Your task to perform on an android device: Play the last video I watched on Youtube Image 0: 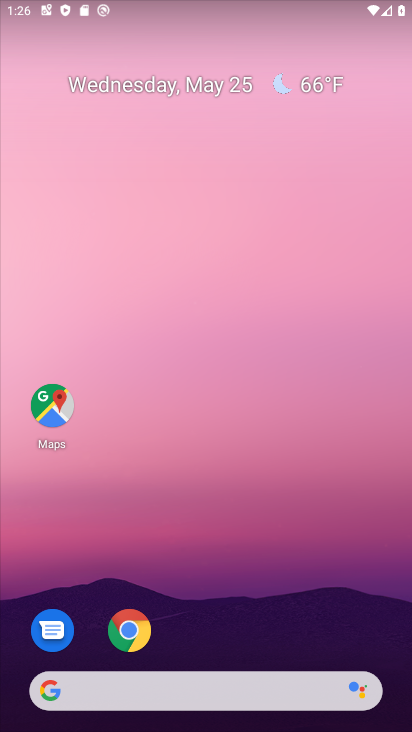
Step 0: press home button
Your task to perform on an android device: Play the last video I watched on Youtube Image 1: 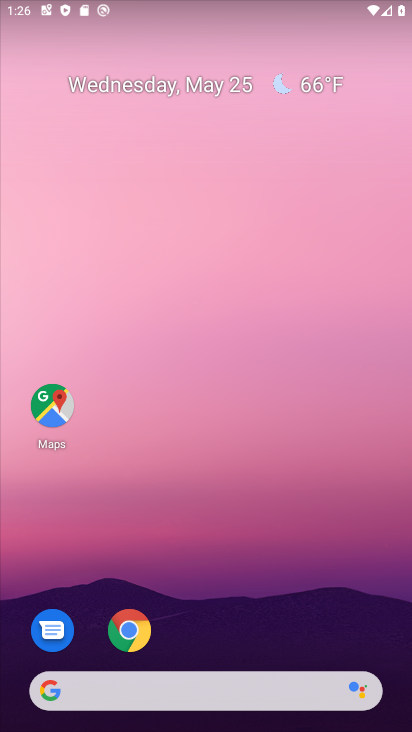
Step 1: drag from (230, 641) to (246, 140)
Your task to perform on an android device: Play the last video I watched on Youtube Image 2: 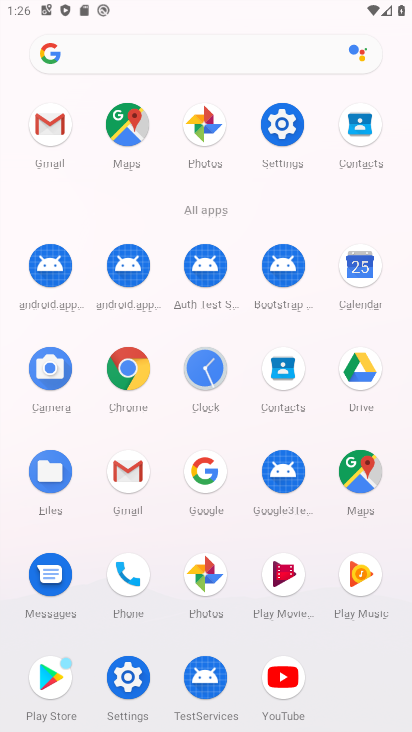
Step 2: click (283, 670)
Your task to perform on an android device: Play the last video I watched on Youtube Image 3: 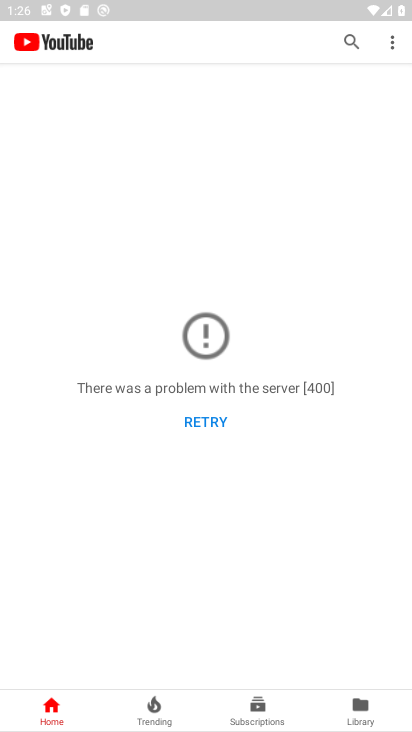
Step 3: click (361, 708)
Your task to perform on an android device: Play the last video I watched on Youtube Image 4: 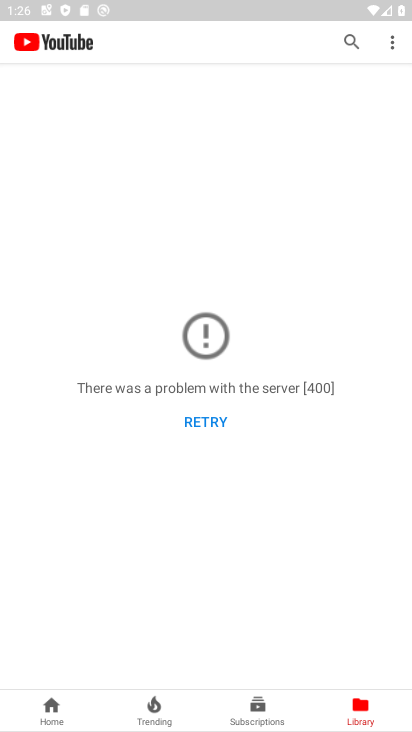
Step 4: click (208, 421)
Your task to perform on an android device: Play the last video I watched on Youtube Image 5: 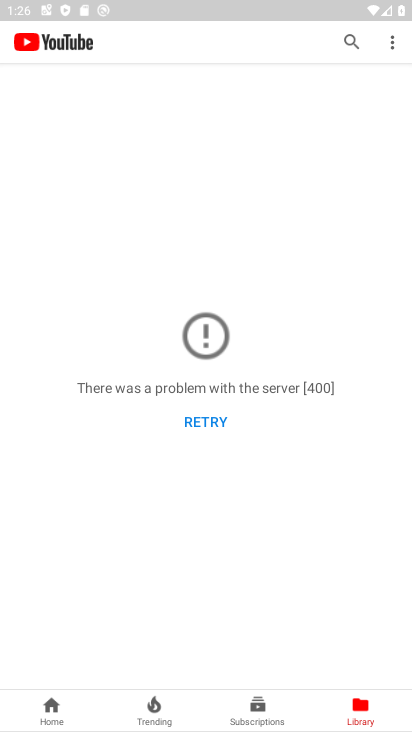
Step 5: click (206, 415)
Your task to perform on an android device: Play the last video I watched on Youtube Image 6: 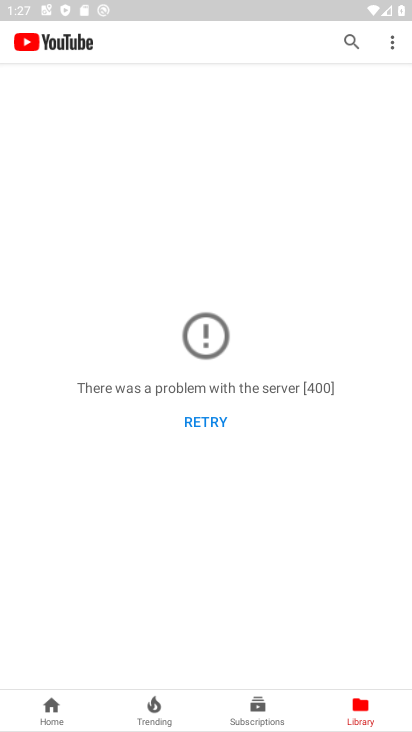
Step 6: task complete